Your task to perform on an android device: What's on my calendar tomorrow? Image 0: 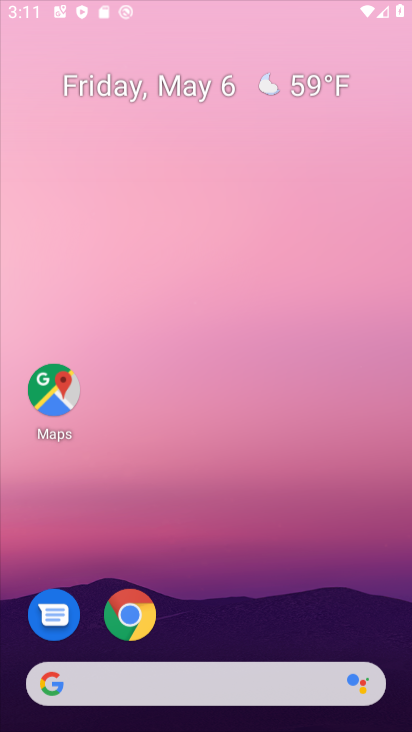
Step 0: click (279, 310)
Your task to perform on an android device: What's on my calendar tomorrow? Image 1: 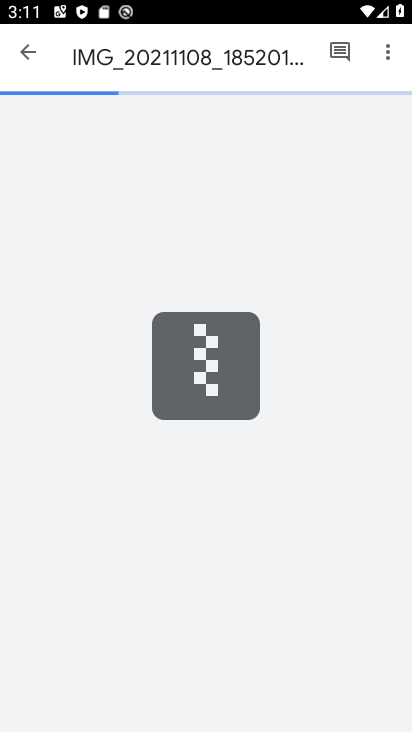
Step 1: press home button
Your task to perform on an android device: What's on my calendar tomorrow? Image 2: 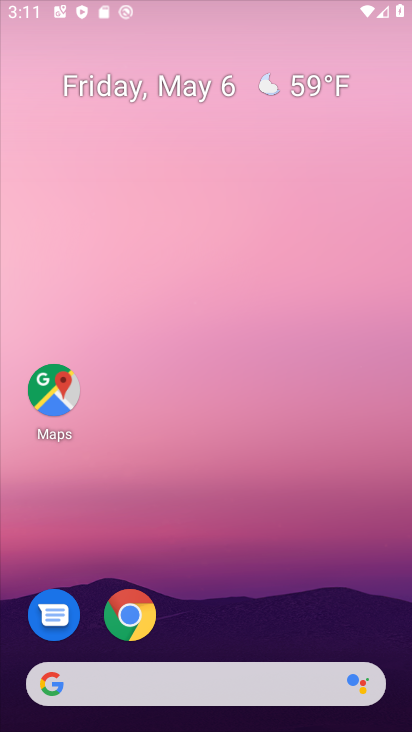
Step 2: drag from (276, 612) to (265, 355)
Your task to perform on an android device: What's on my calendar tomorrow? Image 3: 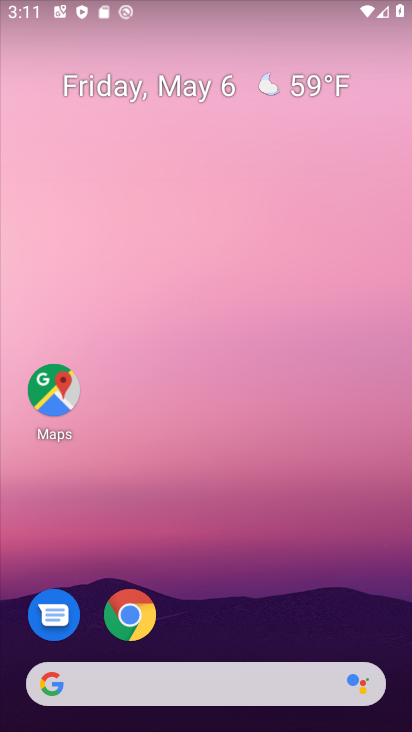
Step 3: drag from (265, 584) to (265, 312)
Your task to perform on an android device: What's on my calendar tomorrow? Image 4: 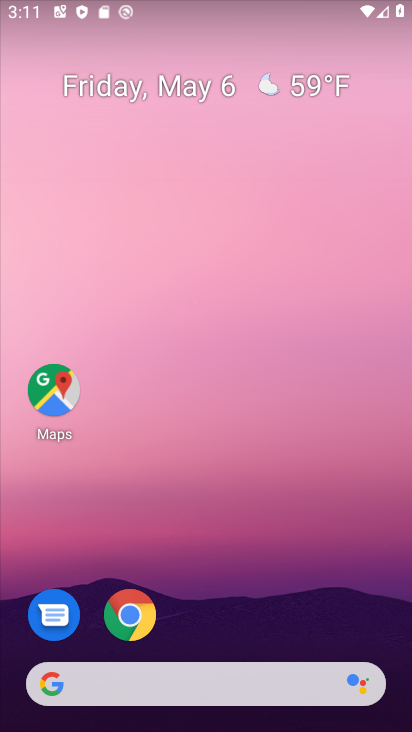
Step 4: drag from (320, 623) to (317, 211)
Your task to perform on an android device: What's on my calendar tomorrow? Image 5: 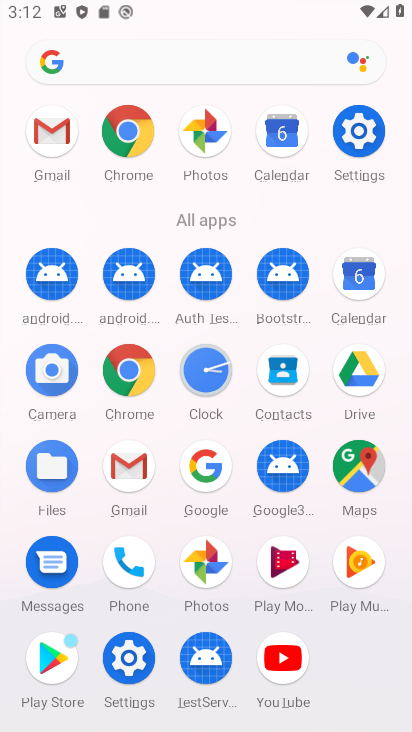
Step 5: click (356, 274)
Your task to perform on an android device: What's on my calendar tomorrow? Image 6: 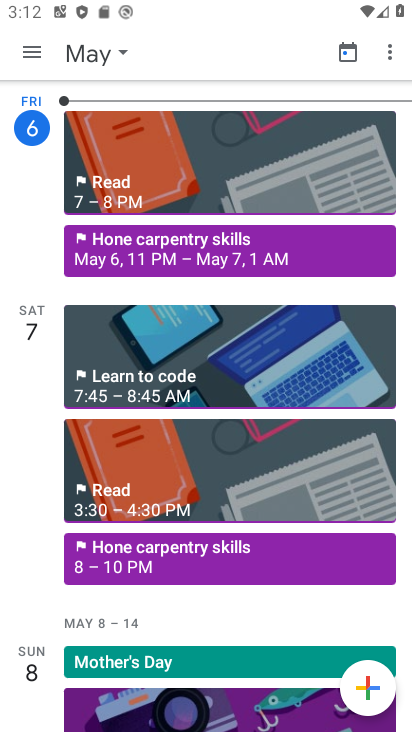
Step 6: click (28, 53)
Your task to perform on an android device: What's on my calendar tomorrow? Image 7: 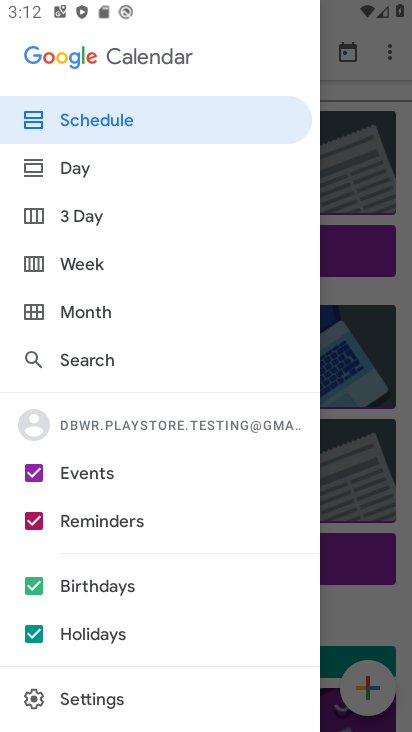
Step 7: click (86, 307)
Your task to perform on an android device: What's on my calendar tomorrow? Image 8: 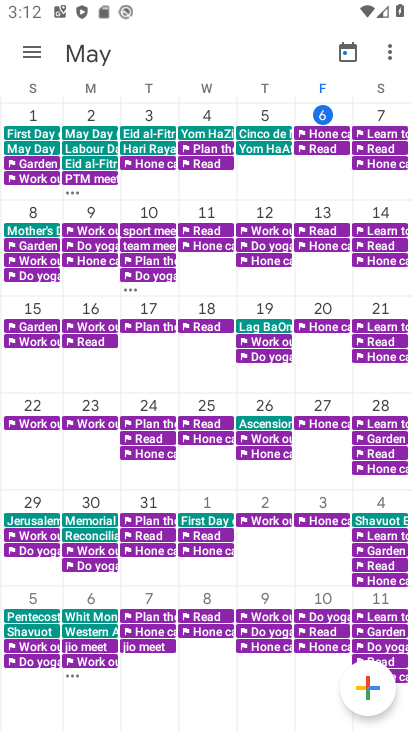
Step 8: click (389, 131)
Your task to perform on an android device: What's on my calendar tomorrow? Image 9: 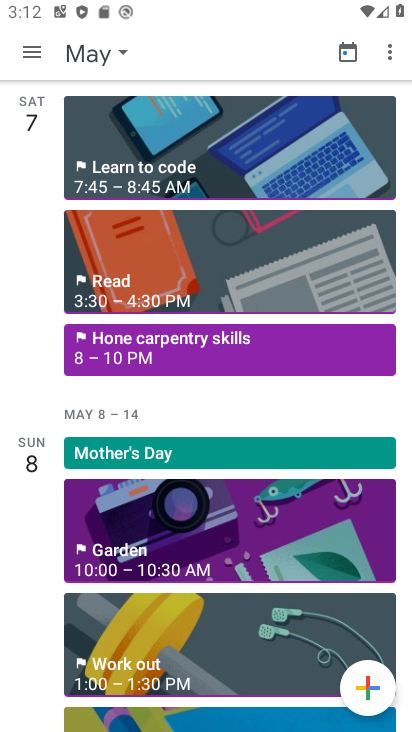
Step 9: task complete